Your task to perform on an android device: Open location settings Image 0: 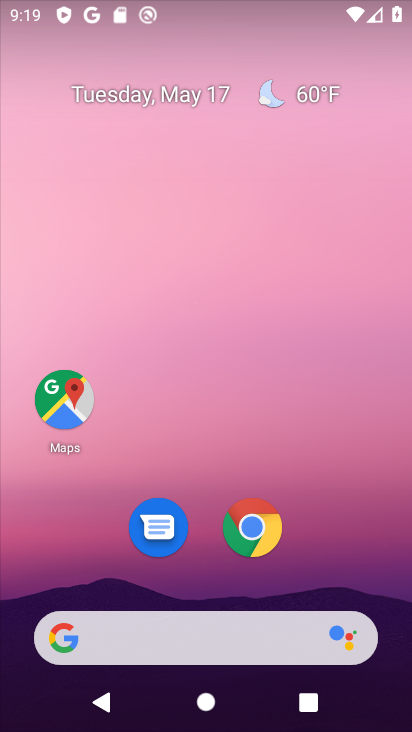
Step 0: drag from (204, 510) to (266, 12)
Your task to perform on an android device: Open location settings Image 1: 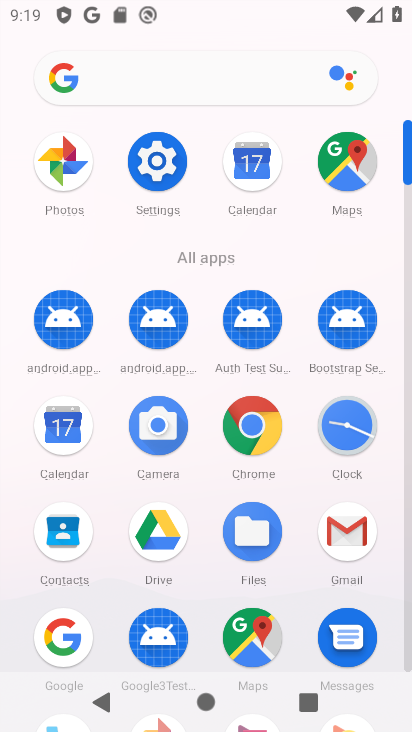
Step 1: click (156, 157)
Your task to perform on an android device: Open location settings Image 2: 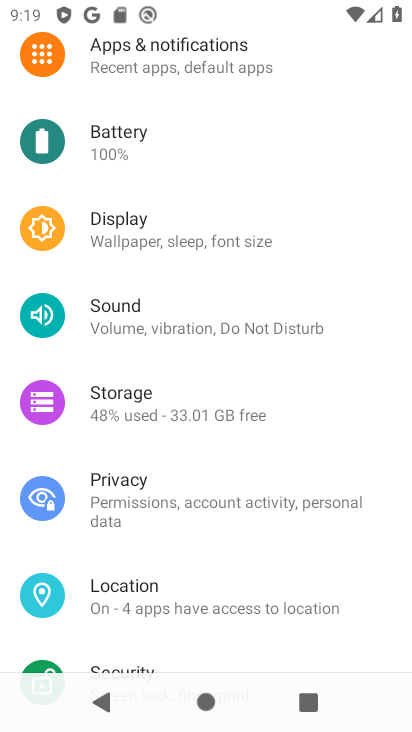
Step 2: click (164, 603)
Your task to perform on an android device: Open location settings Image 3: 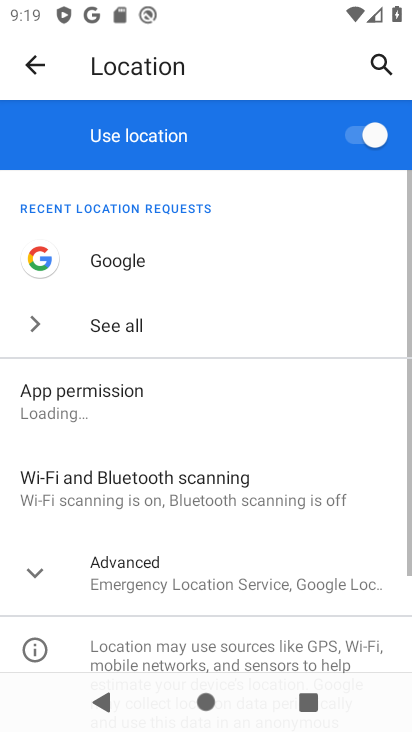
Step 3: task complete